Your task to perform on an android device: Go to Google maps Image 0: 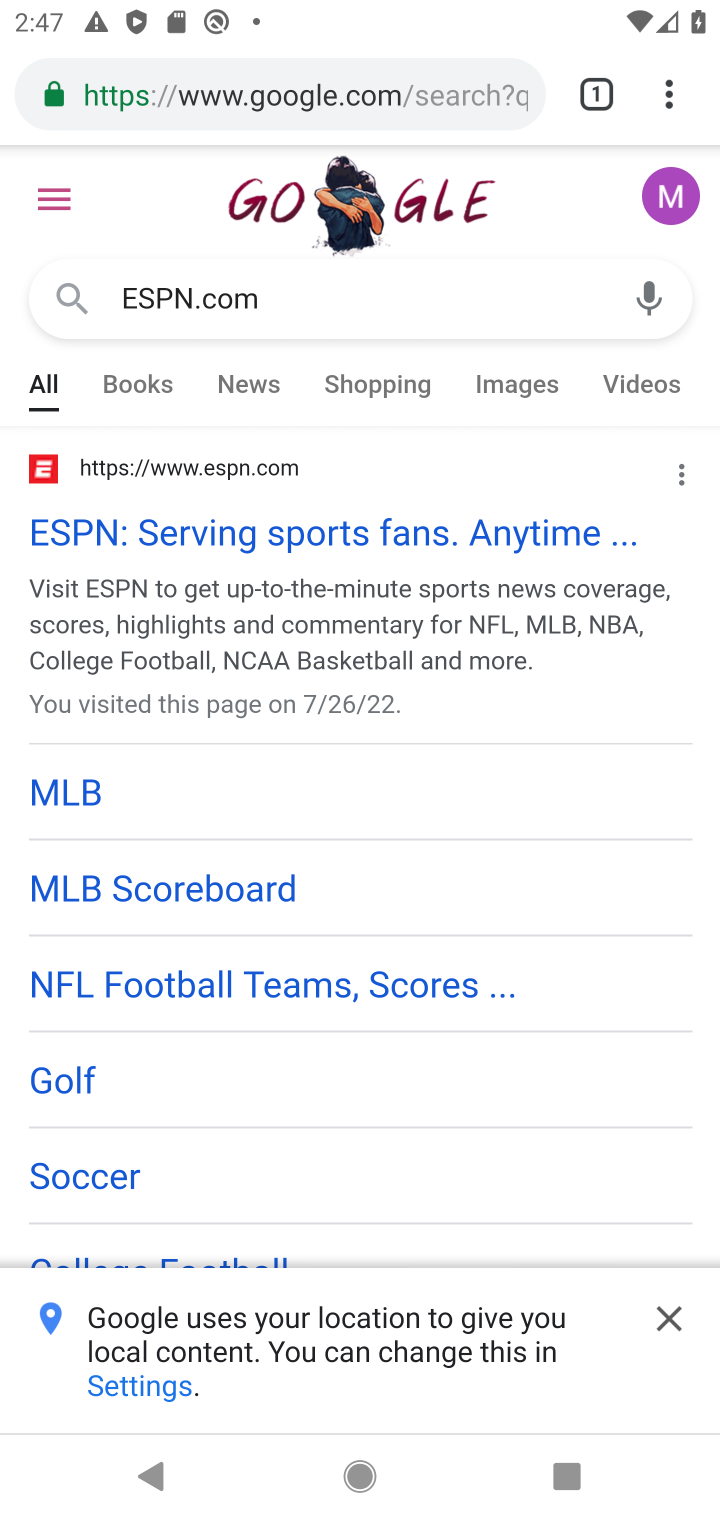
Step 0: press home button
Your task to perform on an android device: Go to Google maps Image 1: 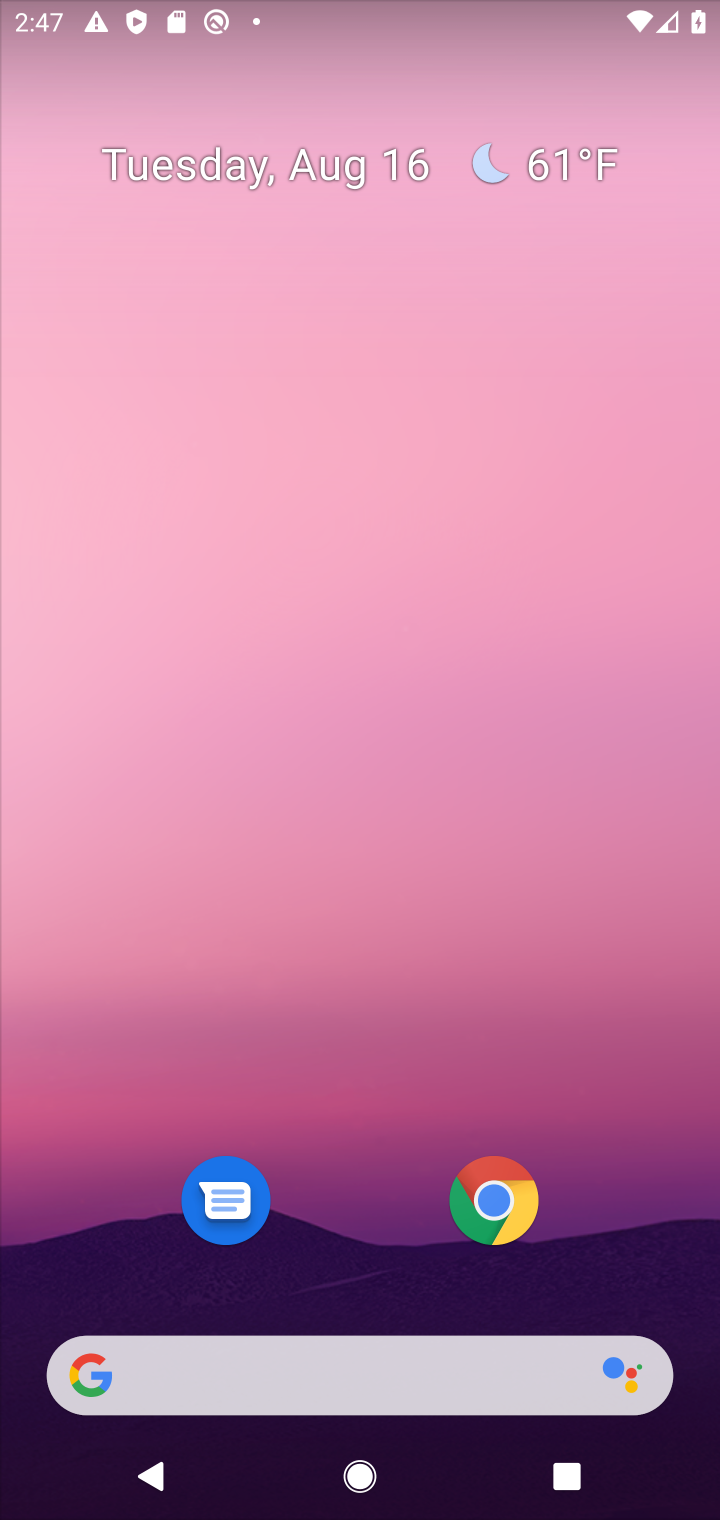
Step 1: drag from (65, 1454) to (398, 486)
Your task to perform on an android device: Go to Google maps Image 2: 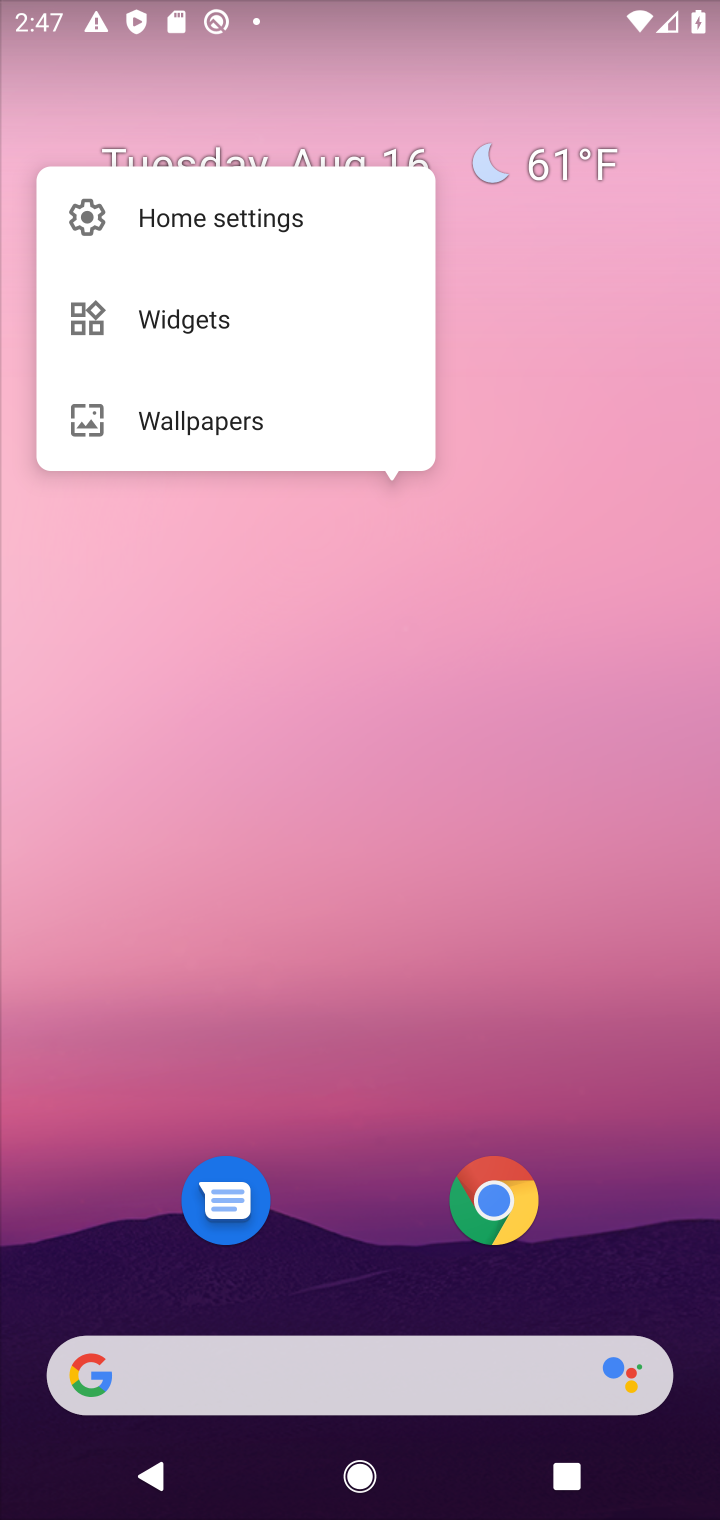
Step 2: drag from (22, 1445) to (320, 615)
Your task to perform on an android device: Go to Google maps Image 3: 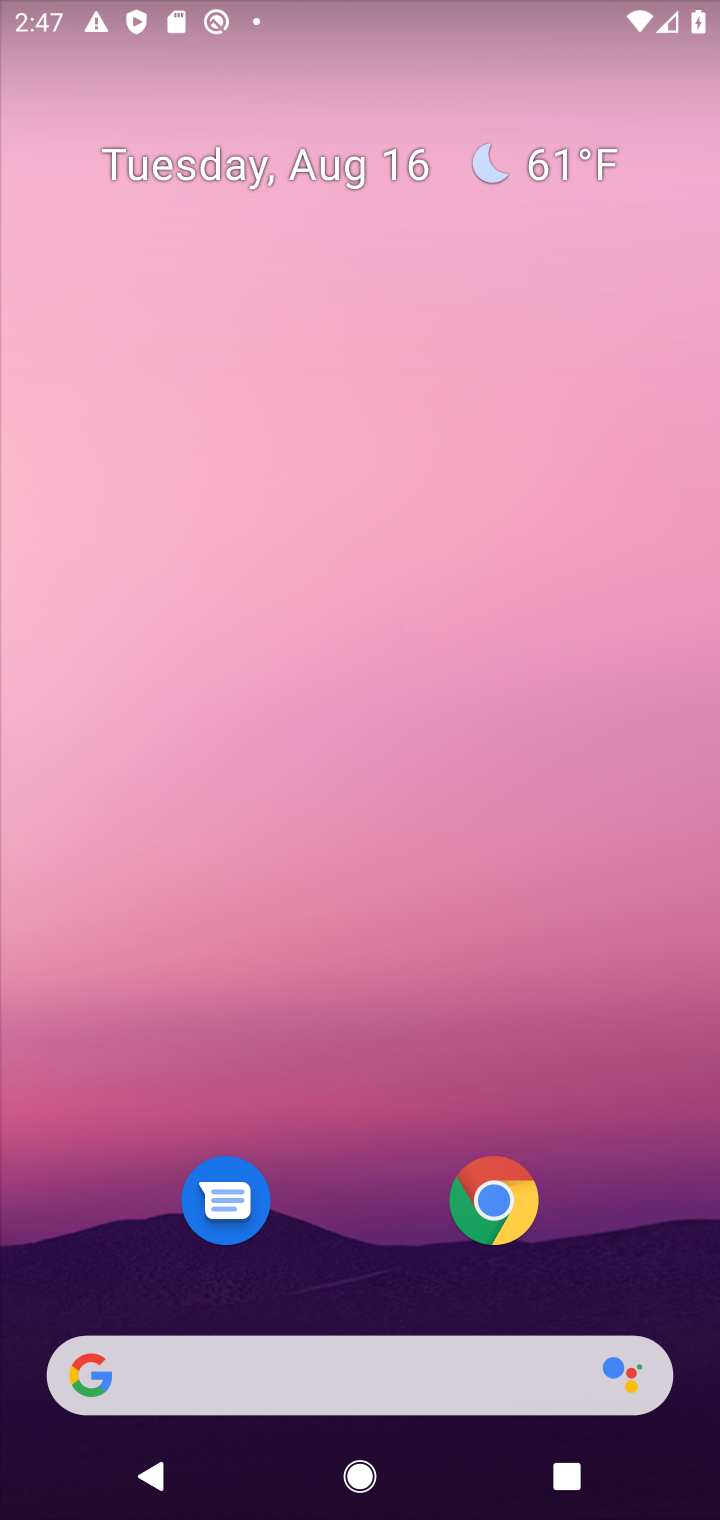
Step 3: click (131, 58)
Your task to perform on an android device: Go to Google maps Image 4: 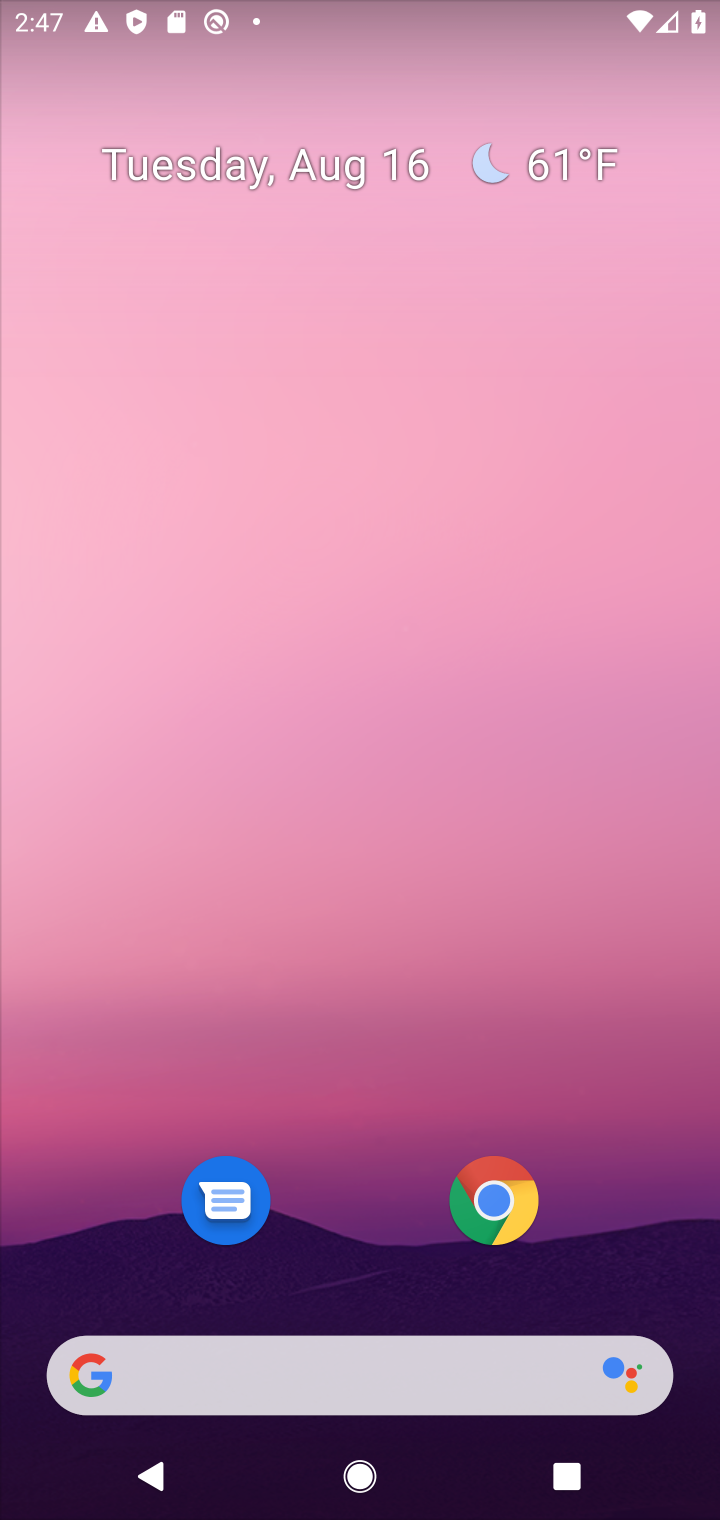
Step 4: task complete